Your task to perform on an android device: When is my next meeting? Image 0: 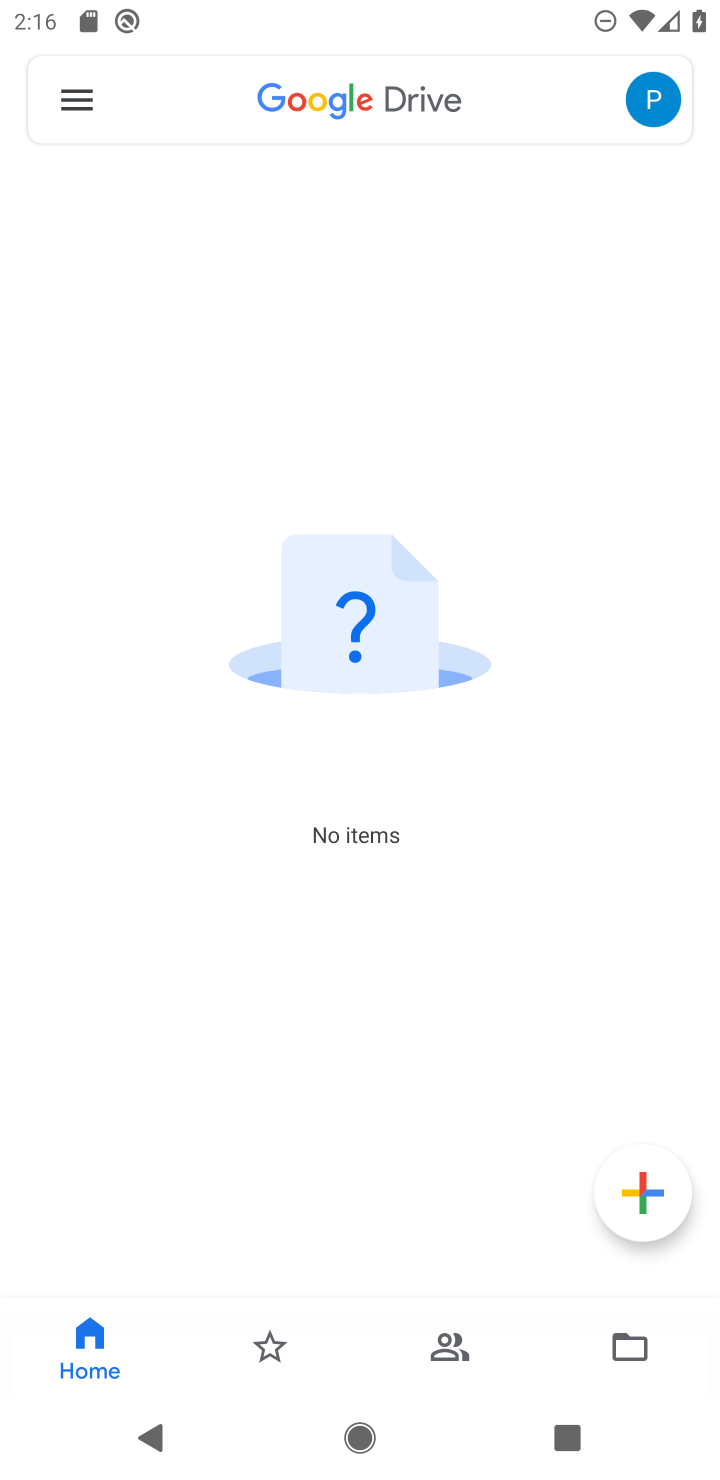
Step 0: press home button
Your task to perform on an android device: When is my next meeting? Image 1: 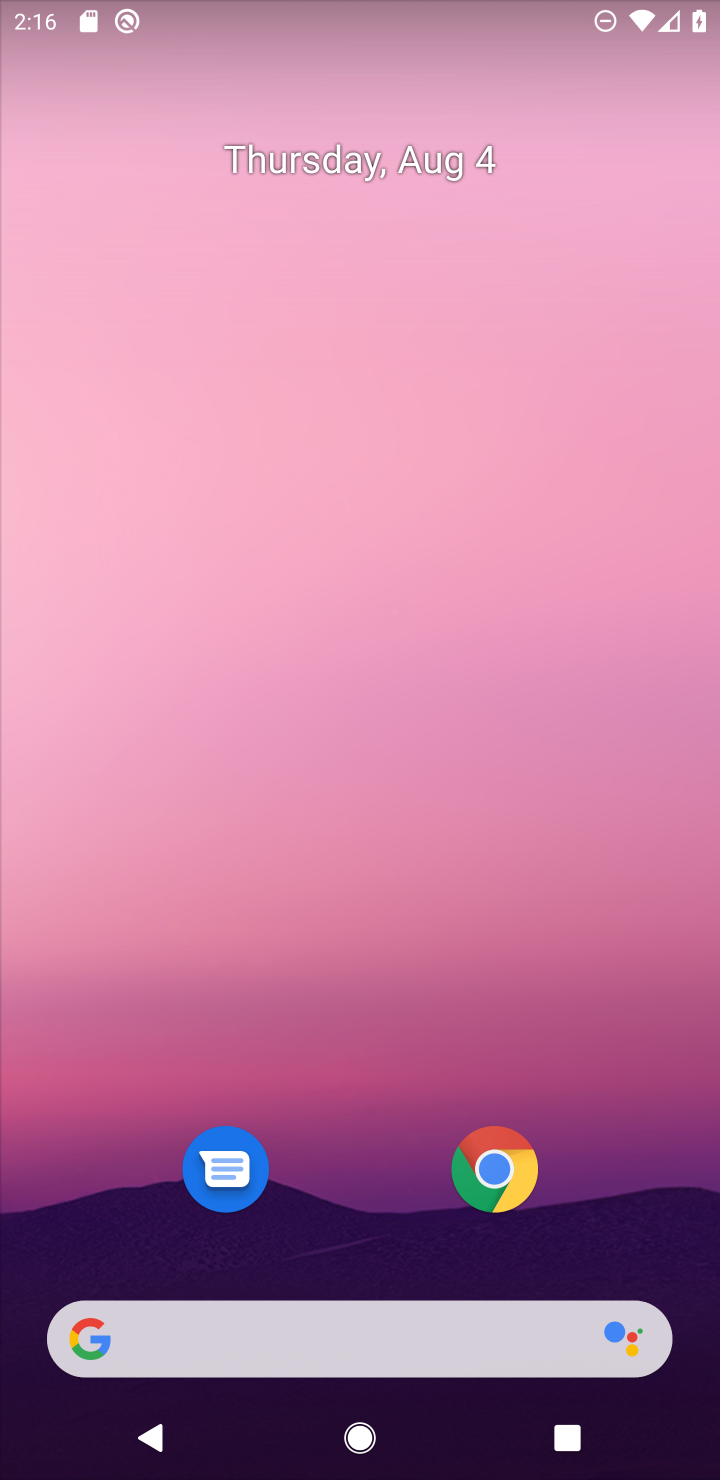
Step 1: drag from (366, 1214) to (363, 32)
Your task to perform on an android device: When is my next meeting? Image 2: 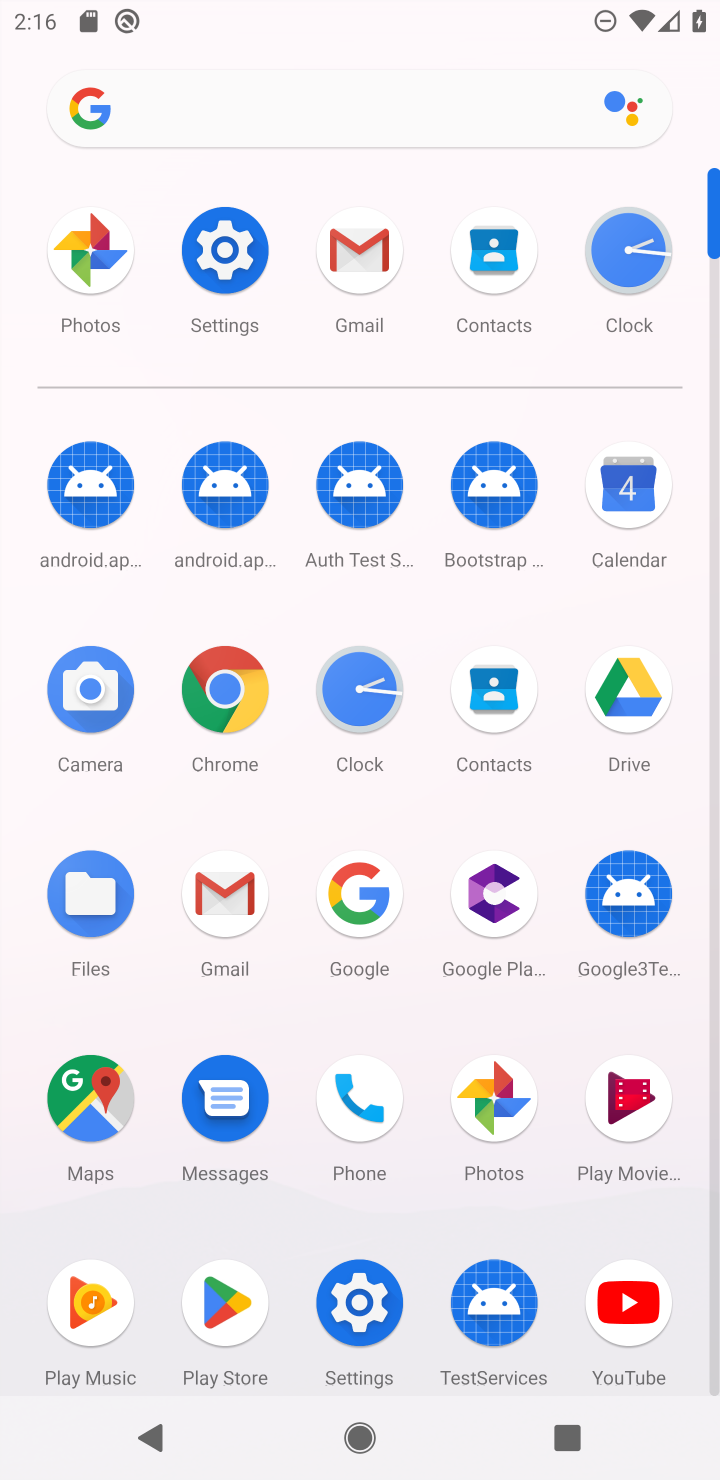
Step 2: click (630, 499)
Your task to perform on an android device: When is my next meeting? Image 3: 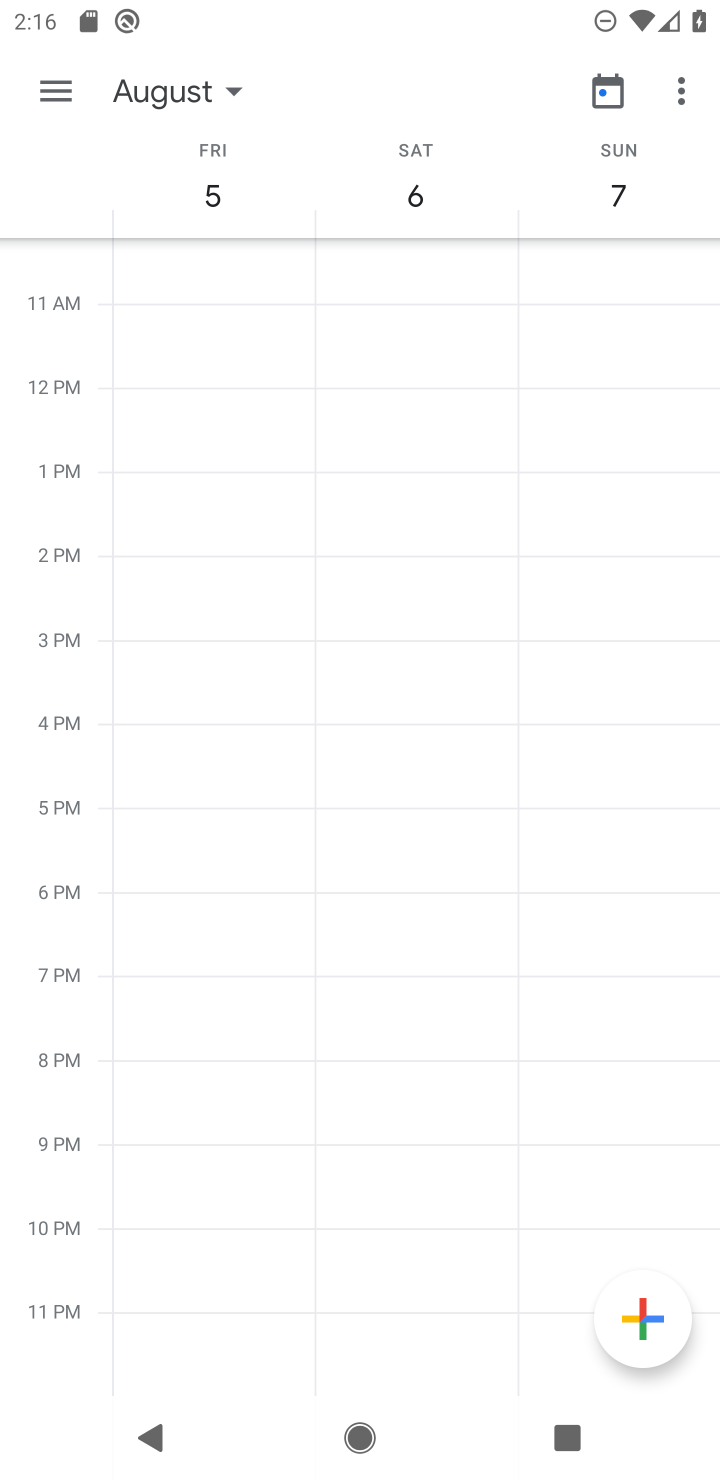
Step 3: click (46, 90)
Your task to perform on an android device: When is my next meeting? Image 4: 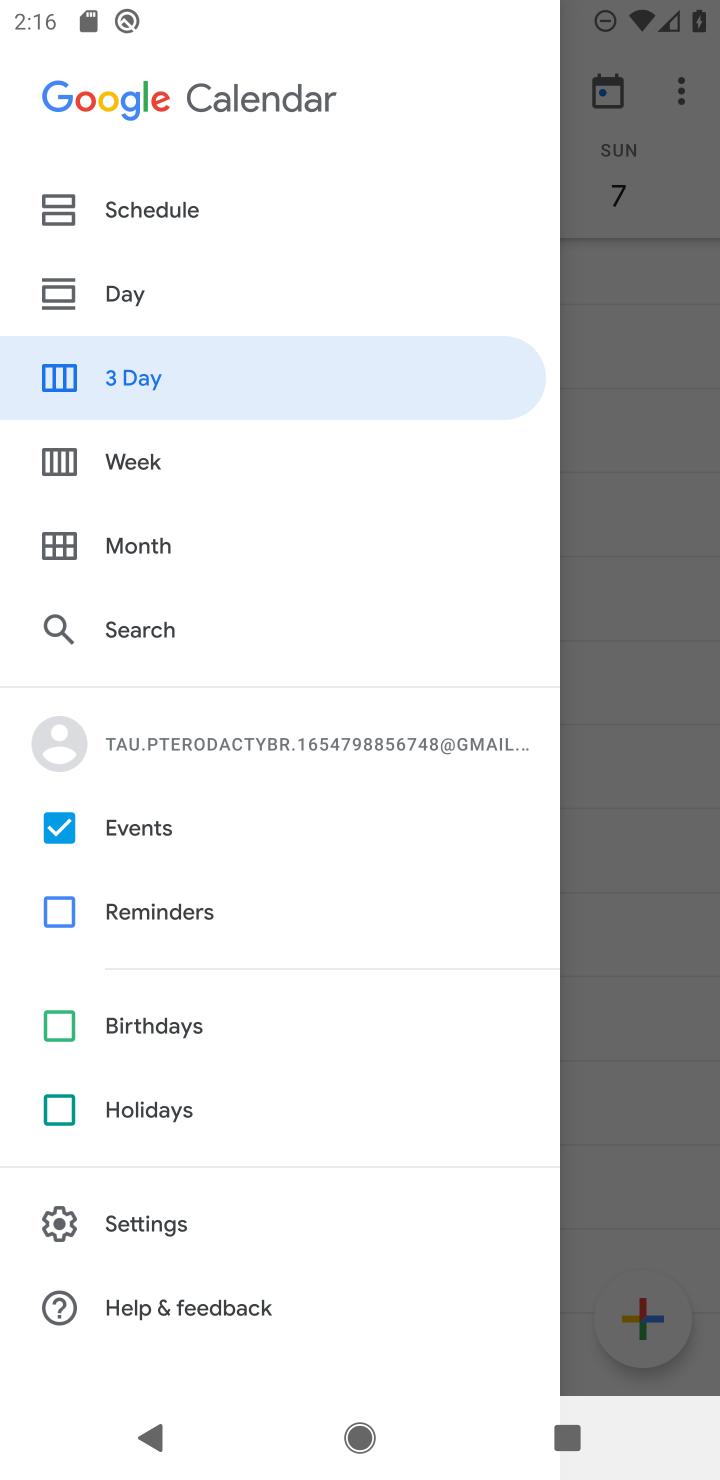
Step 4: click (116, 217)
Your task to perform on an android device: When is my next meeting? Image 5: 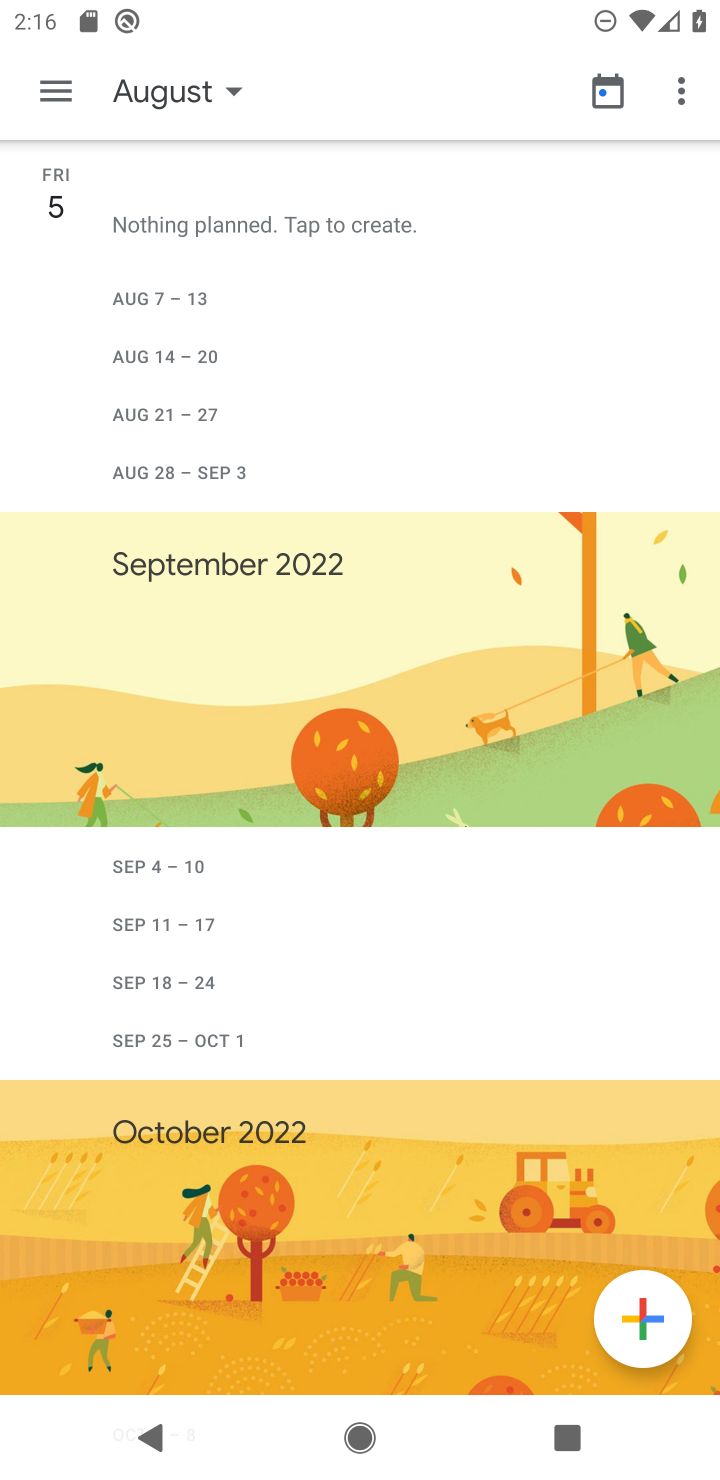
Step 5: task complete